Your task to perform on an android device: Go to Maps Image 0: 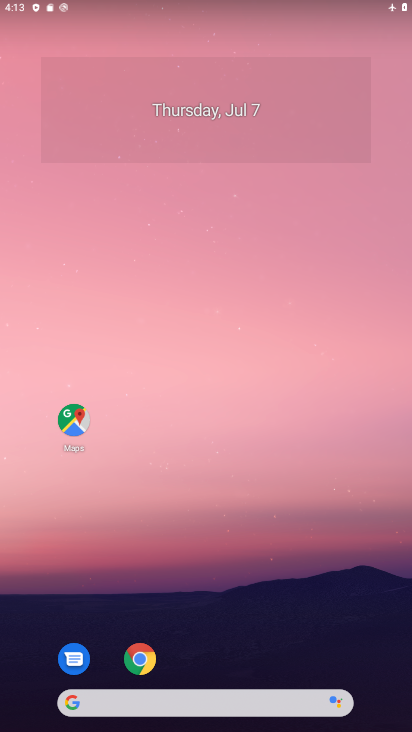
Step 0: drag from (321, 642) to (371, 177)
Your task to perform on an android device: Go to Maps Image 1: 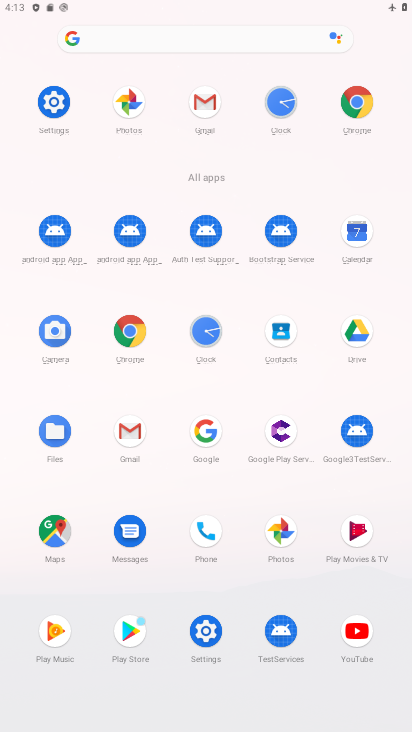
Step 1: click (59, 534)
Your task to perform on an android device: Go to Maps Image 2: 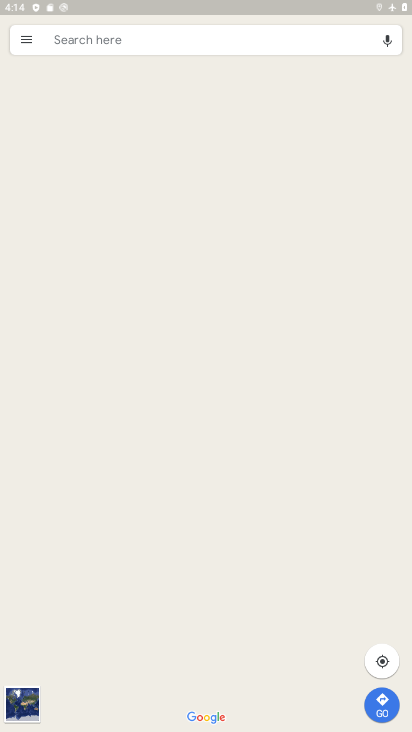
Step 2: task complete